Your task to perform on an android device: How much does a 2 bedroom apartment rent for in Boston? Image 0: 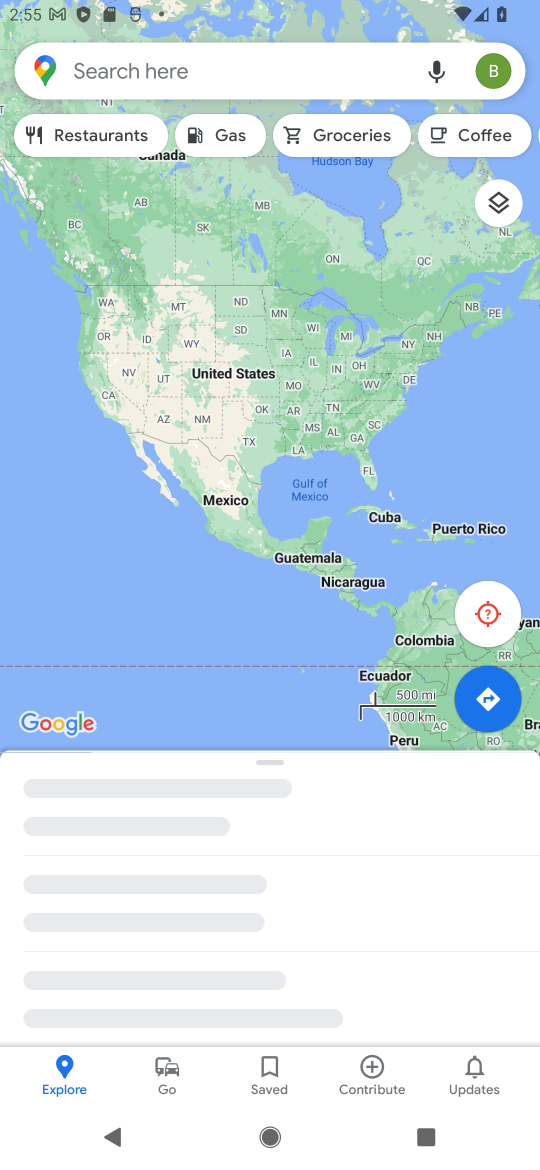
Step 0: press home button
Your task to perform on an android device: How much does a 2 bedroom apartment rent for in Boston? Image 1: 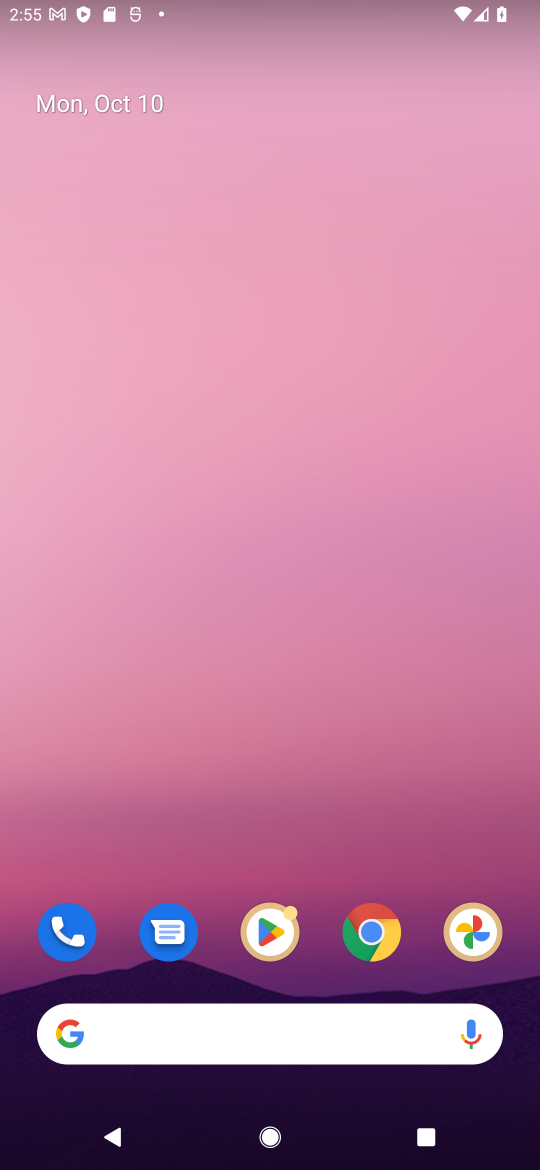
Step 1: click (312, 1033)
Your task to perform on an android device: How much does a 2 bedroom apartment rent for in Boston? Image 2: 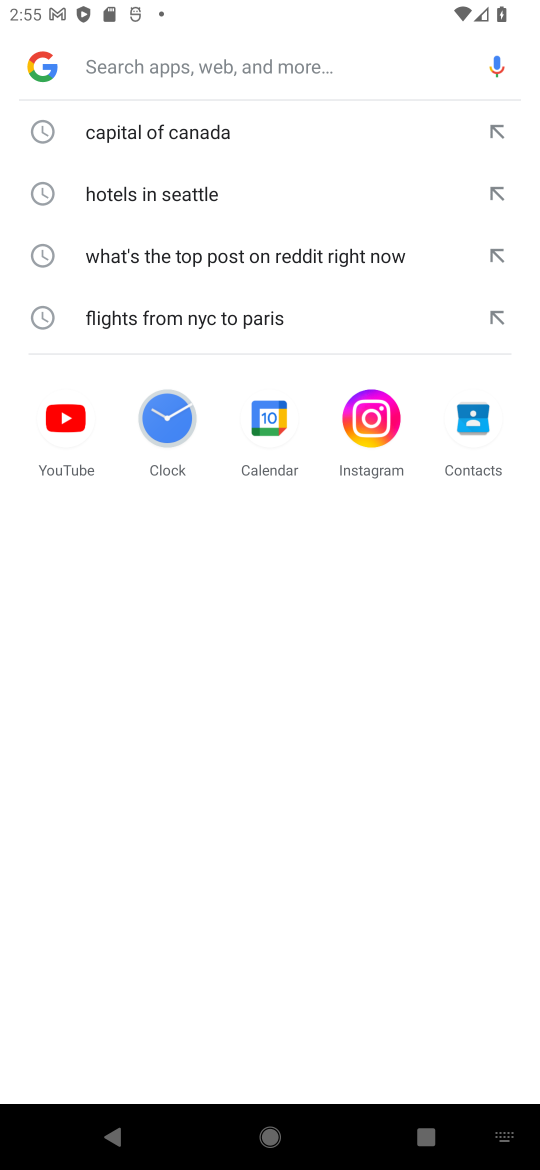
Step 2: type "How much does a 2 bedroom apartment rent for in Boston"
Your task to perform on an android device: How much does a 2 bedroom apartment rent for in Boston? Image 3: 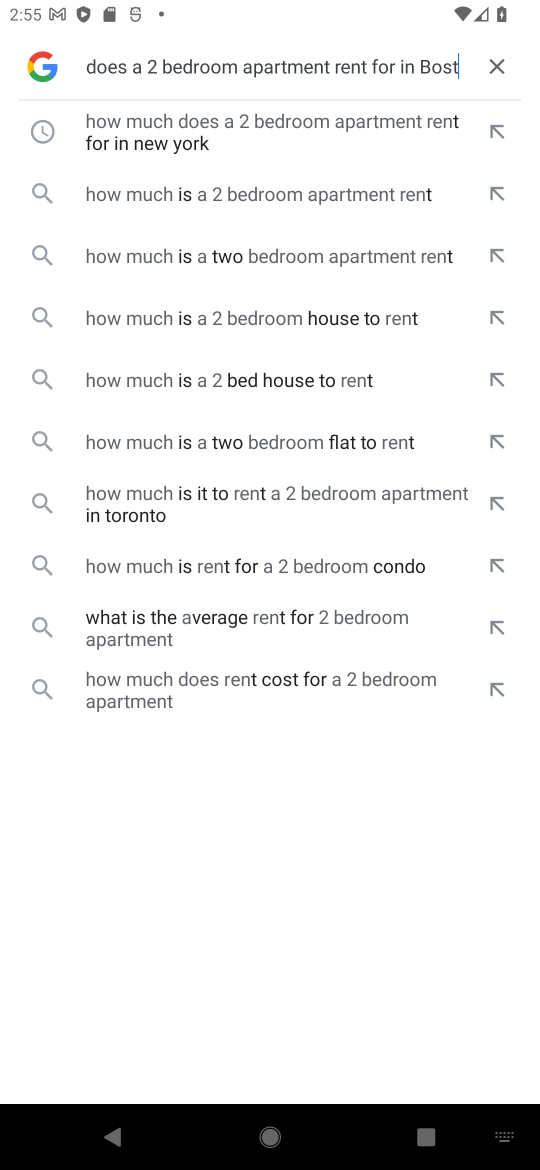
Step 3: press enter
Your task to perform on an android device: How much does a 2 bedroom apartment rent for in Boston? Image 4: 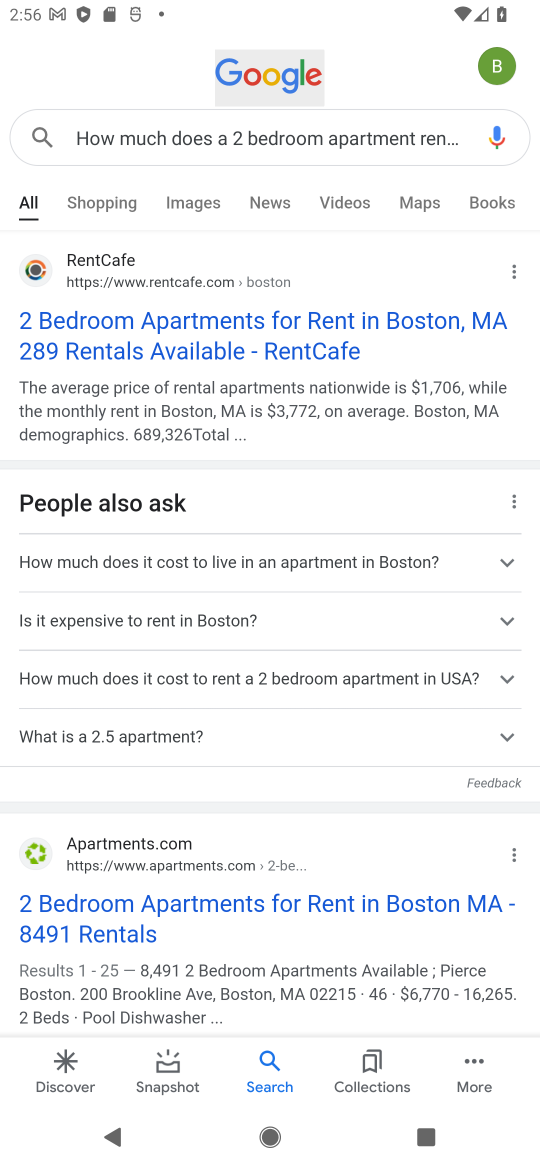
Step 4: click (285, 337)
Your task to perform on an android device: How much does a 2 bedroom apartment rent for in Boston? Image 5: 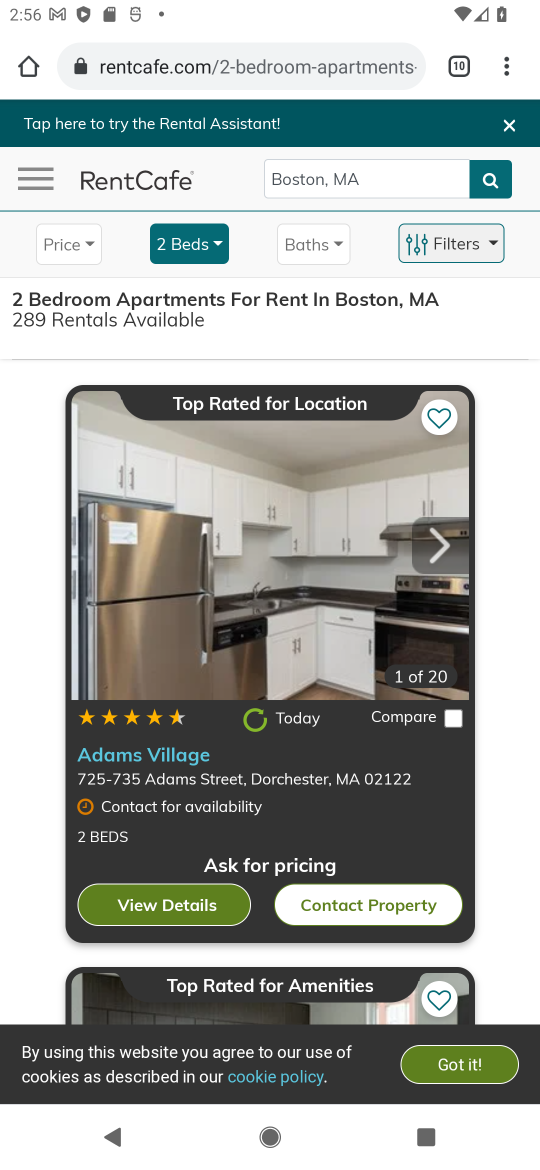
Step 5: task complete